Your task to perform on an android device: Find coffee shops on Maps Image 0: 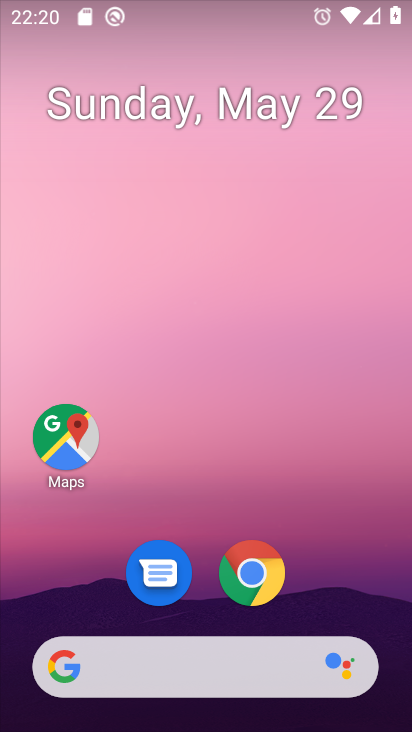
Step 0: click (63, 435)
Your task to perform on an android device: Find coffee shops on Maps Image 1: 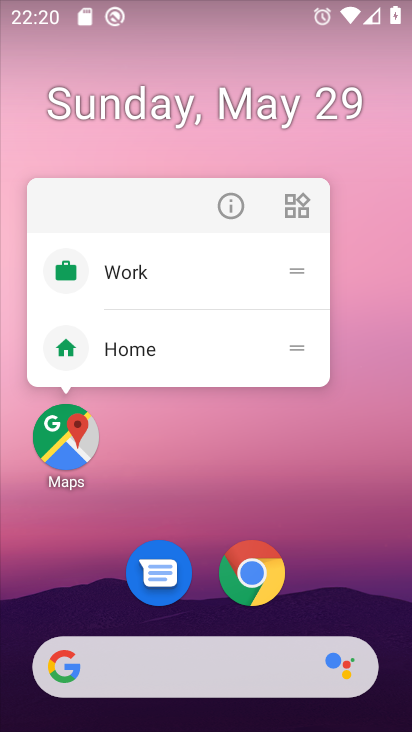
Step 1: click (63, 437)
Your task to perform on an android device: Find coffee shops on Maps Image 2: 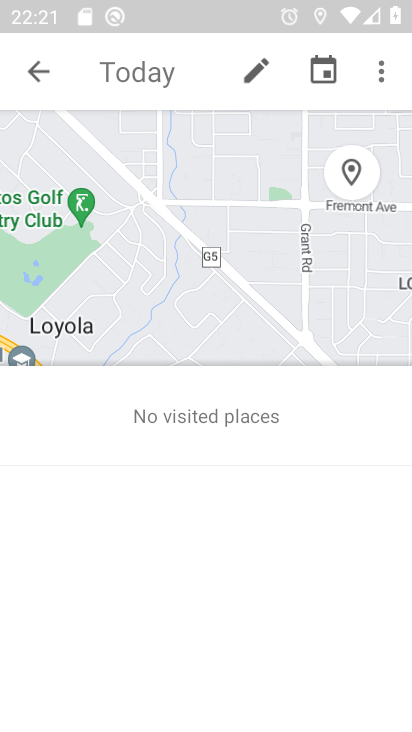
Step 2: click (31, 64)
Your task to perform on an android device: Find coffee shops on Maps Image 3: 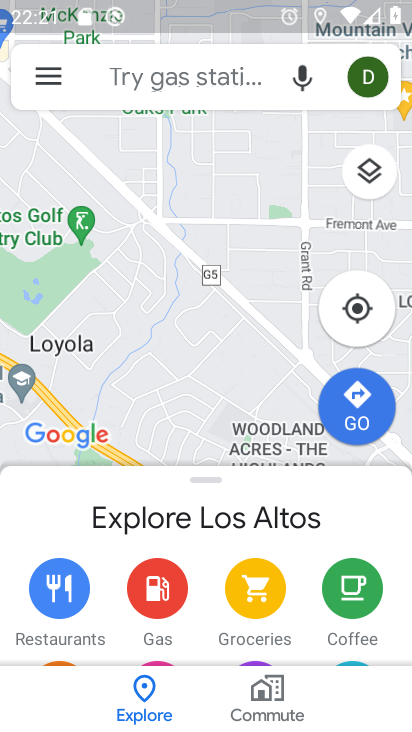
Step 3: click (112, 72)
Your task to perform on an android device: Find coffee shops on Maps Image 4: 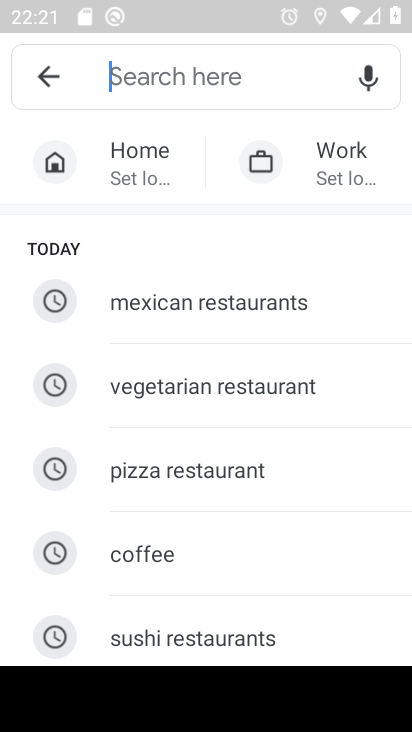
Step 4: click (190, 537)
Your task to perform on an android device: Find coffee shops on Maps Image 5: 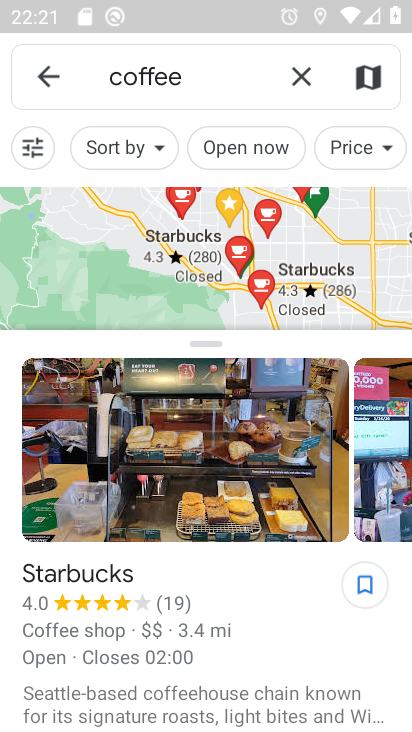
Step 5: task complete